Your task to perform on an android device: Open location settings Image 0: 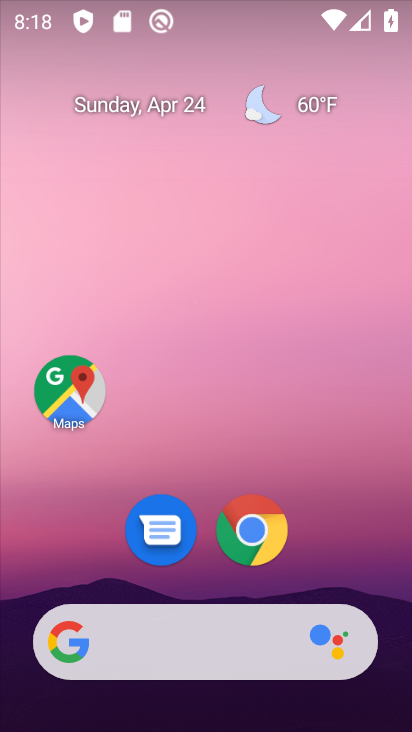
Step 0: drag from (163, 506) to (340, 35)
Your task to perform on an android device: Open location settings Image 1: 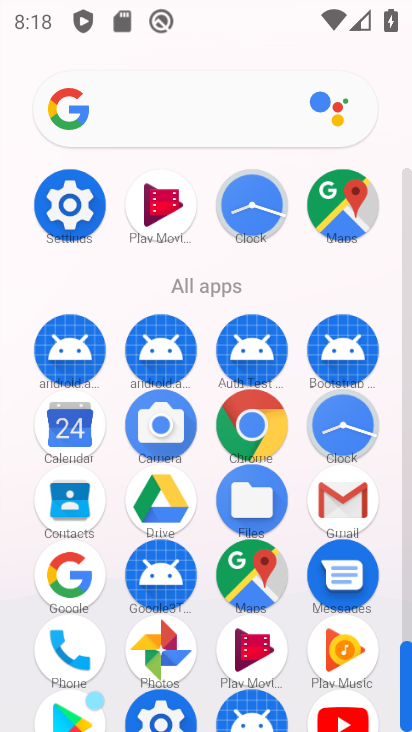
Step 1: drag from (174, 665) to (275, 321)
Your task to perform on an android device: Open location settings Image 2: 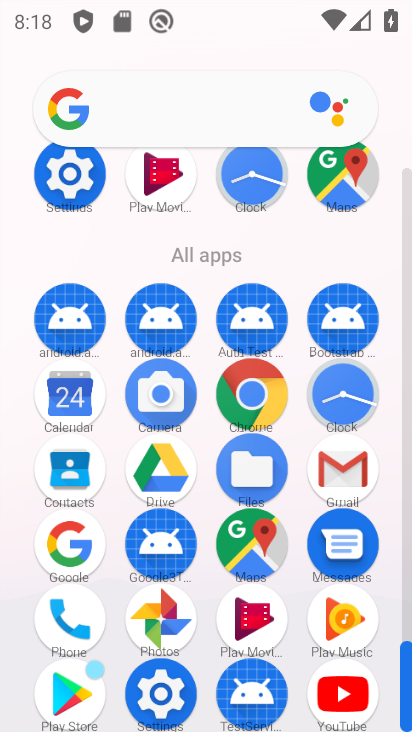
Step 2: click (164, 711)
Your task to perform on an android device: Open location settings Image 3: 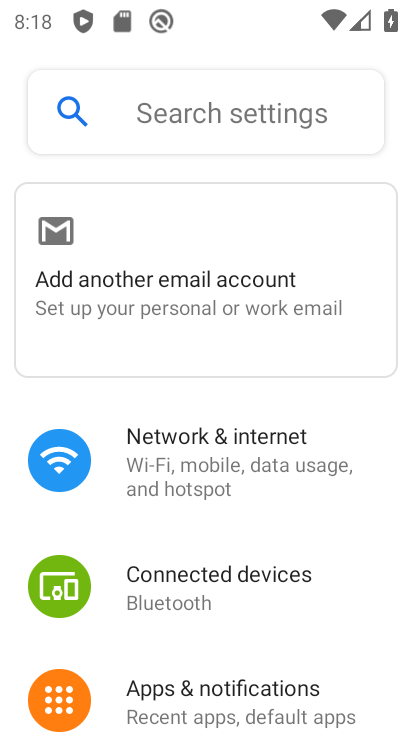
Step 3: drag from (239, 667) to (379, 158)
Your task to perform on an android device: Open location settings Image 4: 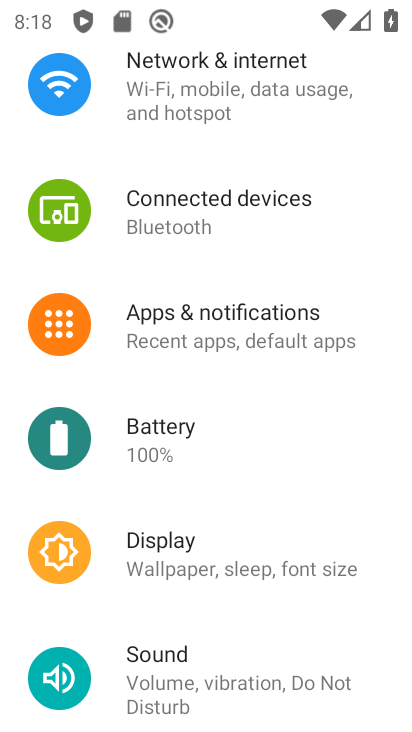
Step 4: drag from (226, 527) to (329, 116)
Your task to perform on an android device: Open location settings Image 5: 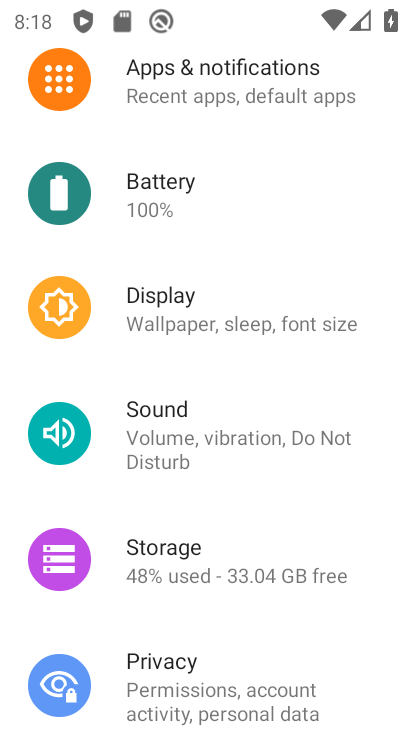
Step 5: drag from (219, 619) to (351, 212)
Your task to perform on an android device: Open location settings Image 6: 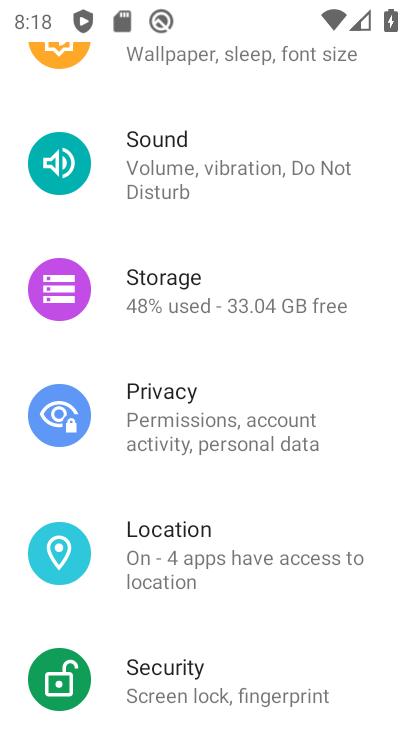
Step 6: click (214, 570)
Your task to perform on an android device: Open location settings Image 7: 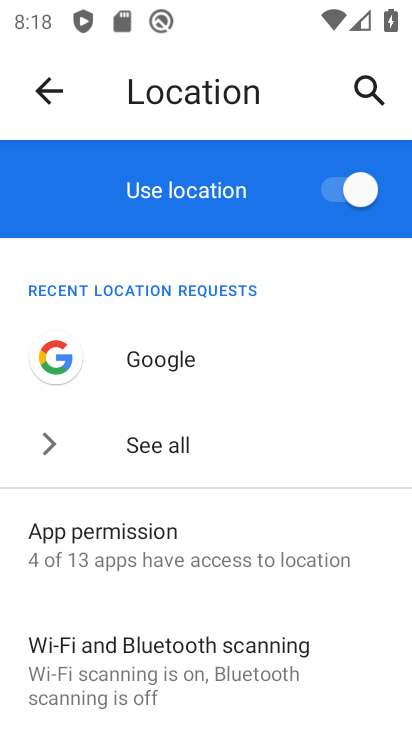
Step 7: task complete